Your task to perform on an android device: What is the capital of Argentina? Image 0: 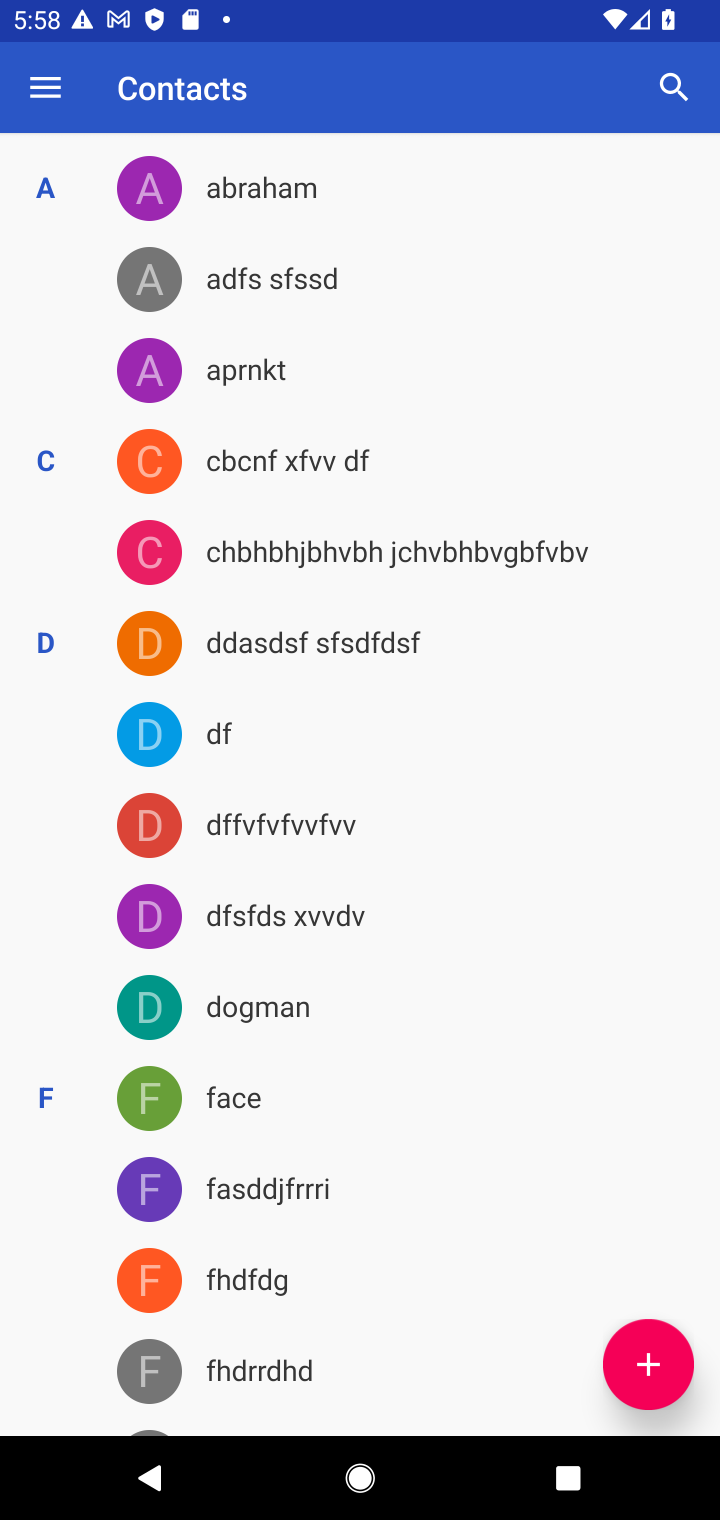
Step 0: press home button
Your task to perform on an android device: What is the capital of Argentina? Image 1: 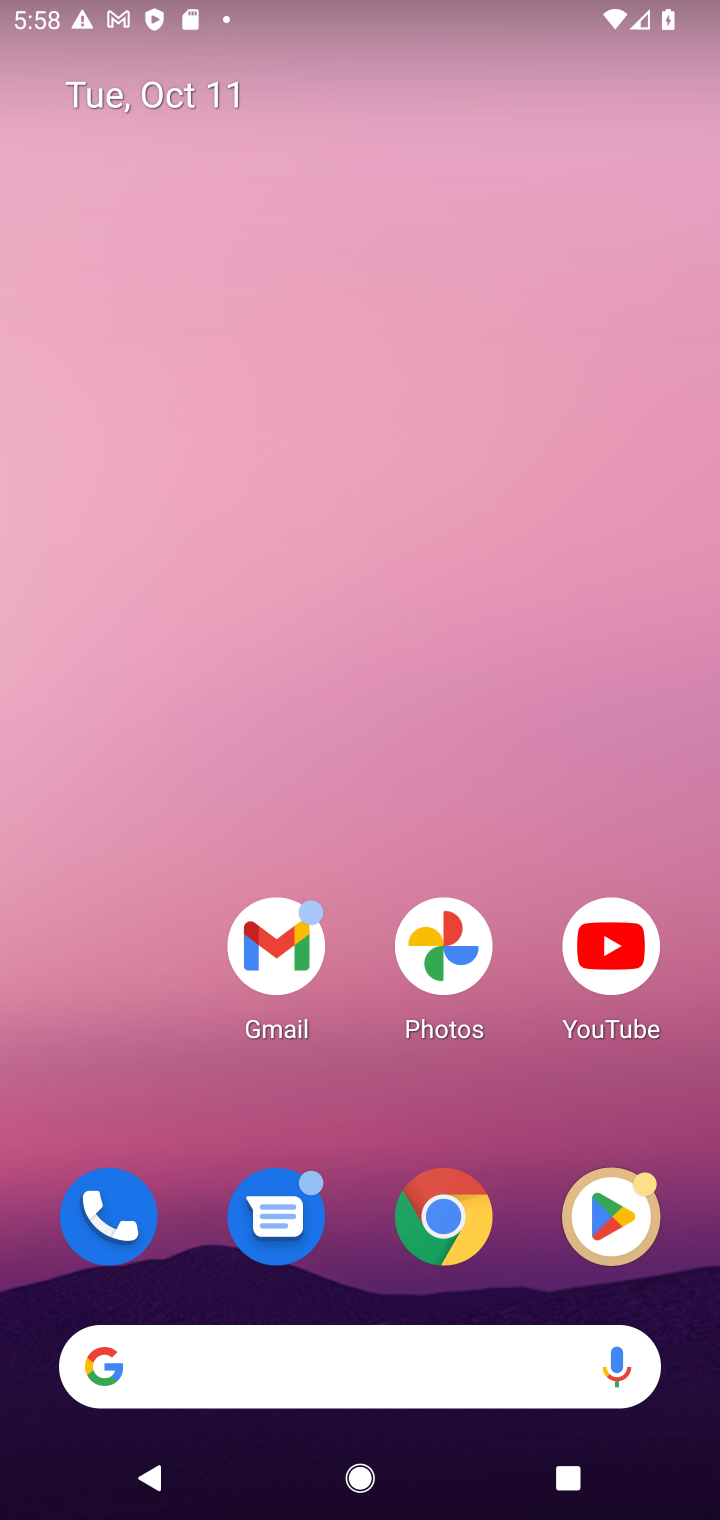
Step 1: click (450, 1218)
Your task to perform on an android device: What is the capital of Argentina? Image 2: 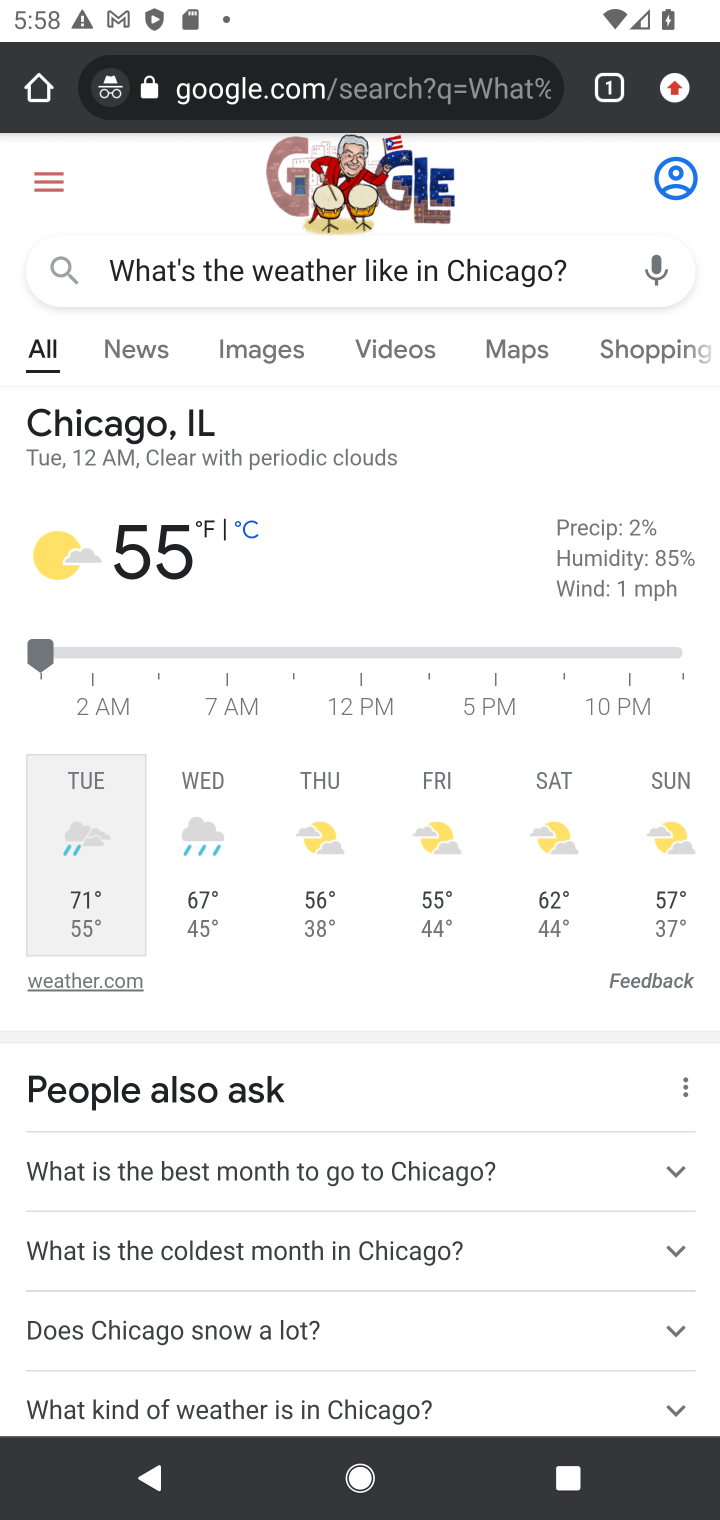
Step 2: click (457, 74)
Your task to perform on an android device: What is the capital of Argentina? Image 3: 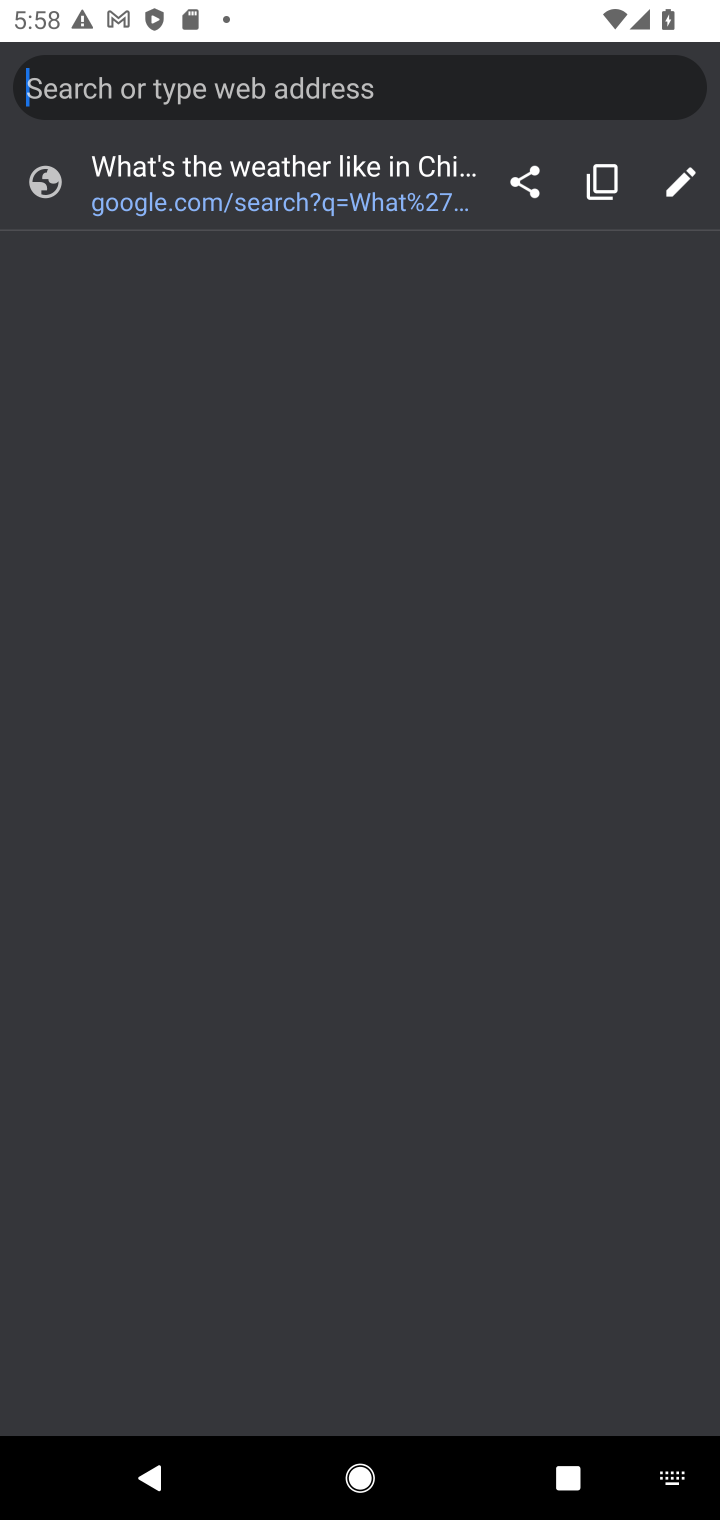
Step 3: type "What is the capital of Argentina?"
Your task to perform on an android device: What is the capital of Argentina? Image 4: 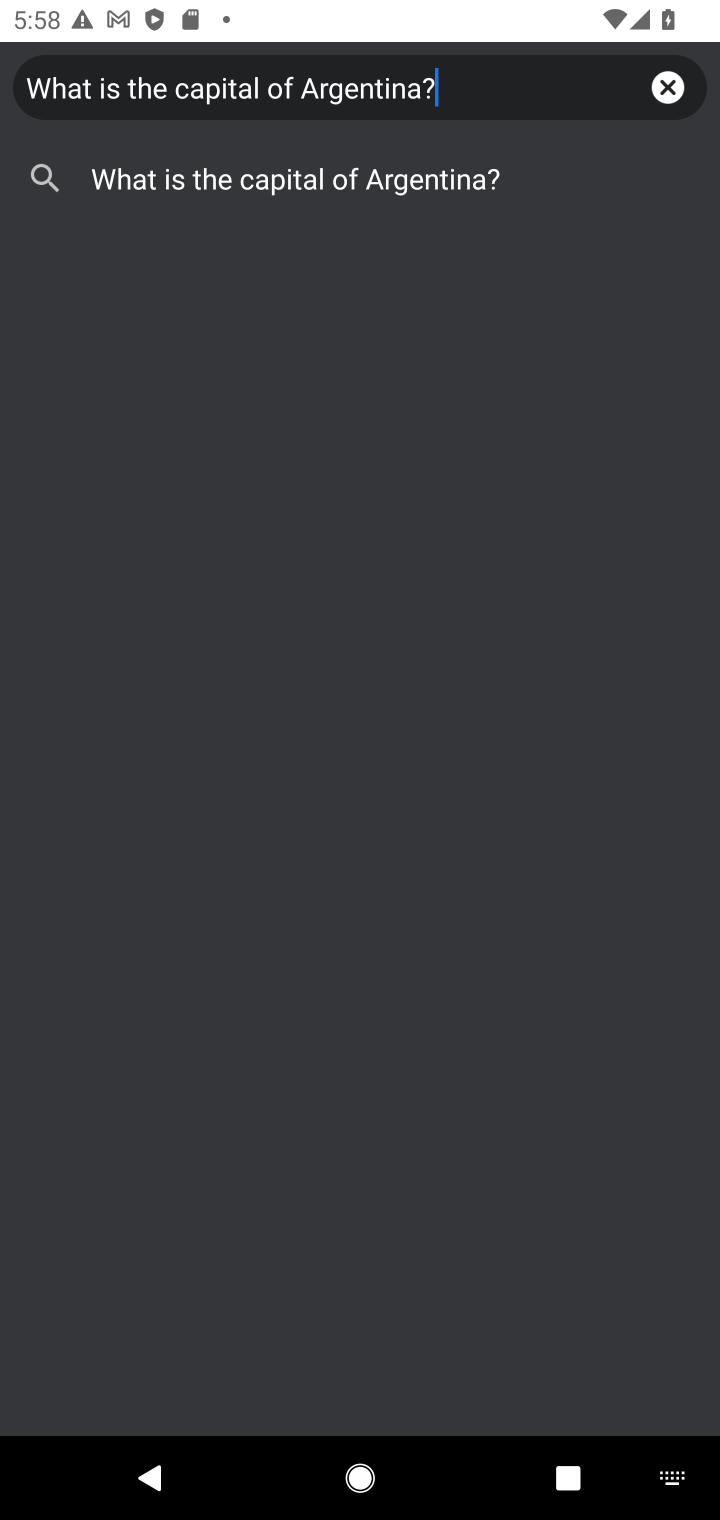
Step 4: click (440, 175)
Your task to perform on an android device: What is the capital of Argentina? Image 5: 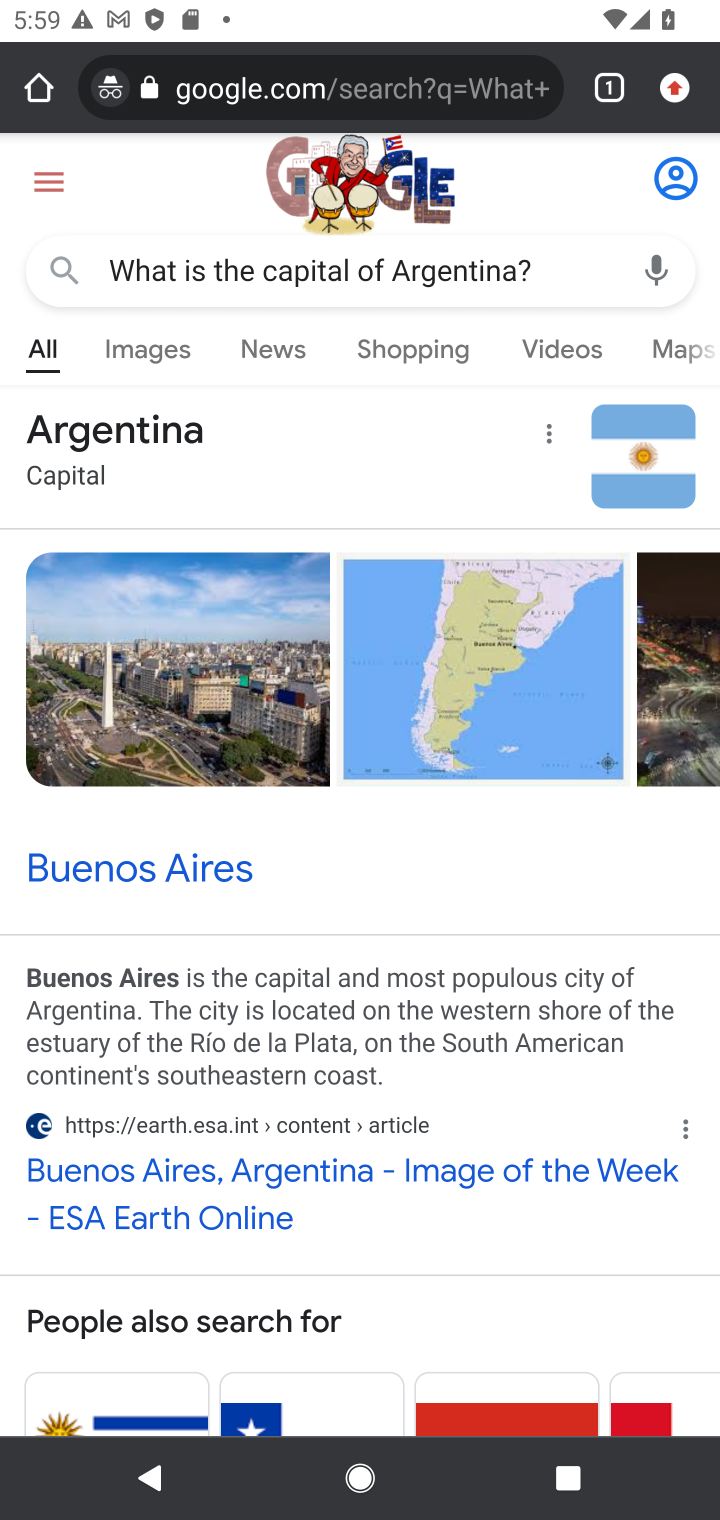
Step 5: task complete